Your task to perform on an android device: turn on javascript in the chrome app Image 0: 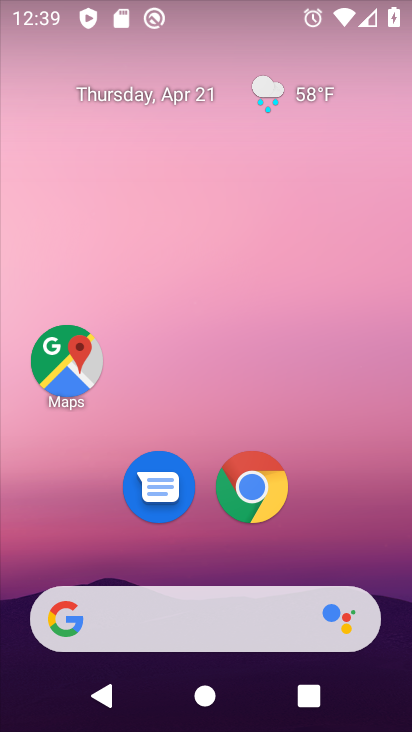
Step 0: click (260, 490)
Your task to perform on an android device: turn on javascript in the chrome app Image 1: 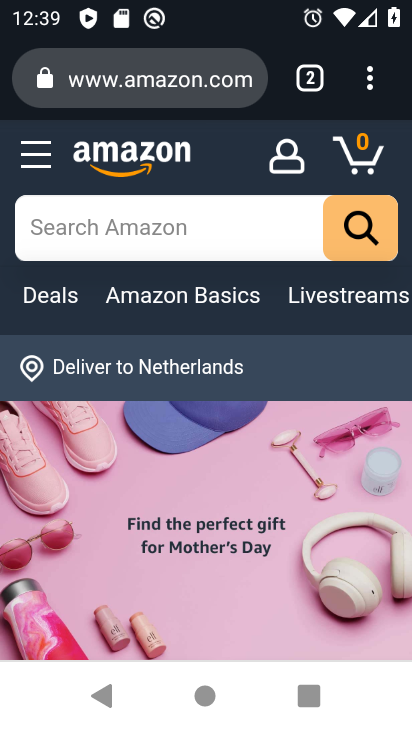
Step 1: click (370, 83)
Your task to perform on an android device: turn on javascript in the chrome app Image 2: 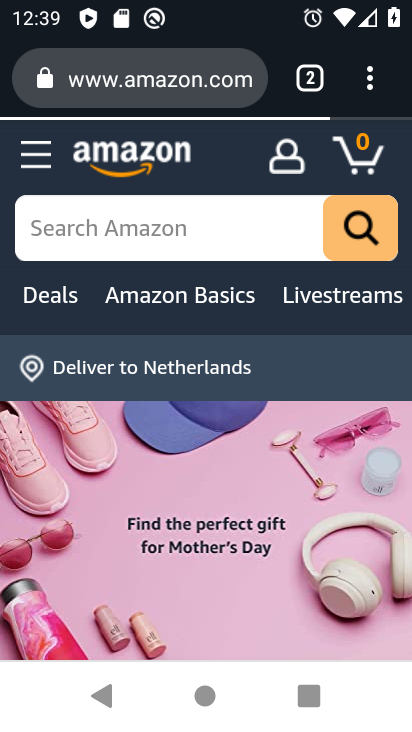
Step 2: click (370, 83)
Your task to perform on an android device: turn on javascript in the chrome app Image 3: 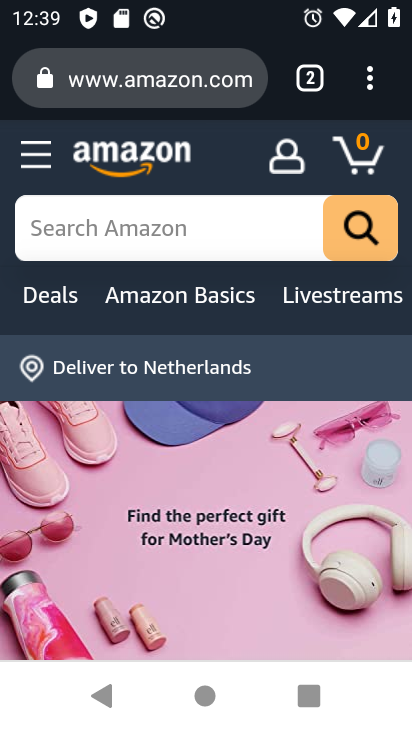
Step 3: click (351, 76)
Your task to perform on an android device: turn on javascript in the chrome app Image 4: 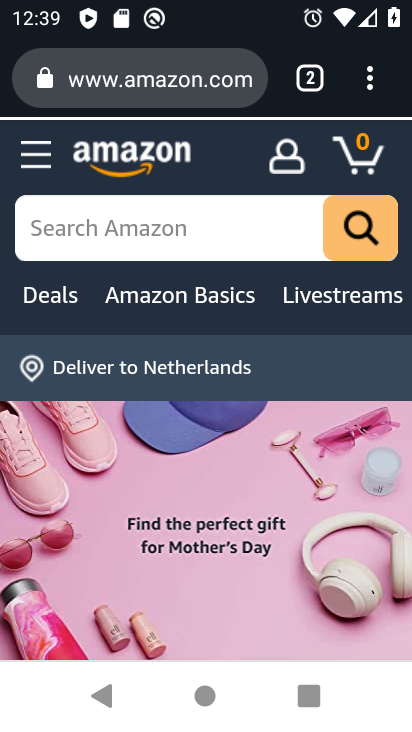
Step 4: click (344, 84)
Your task to perform on an android device: turn on javascript in the chrome app Image 5: 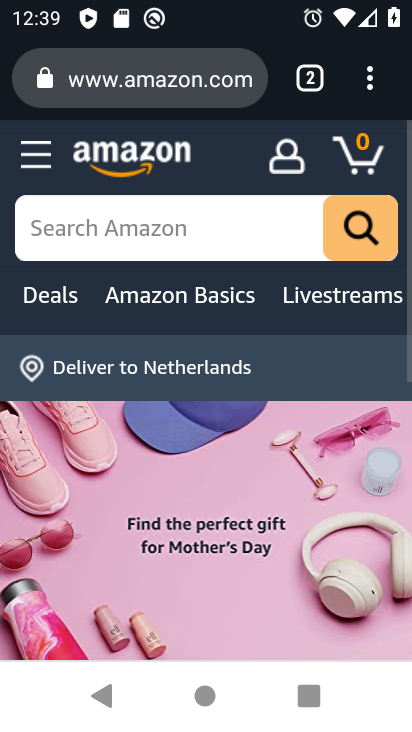
Step 5: click (342, 87)
Your task to perform on an android device: turn on javascript in the chrome app Image 6: 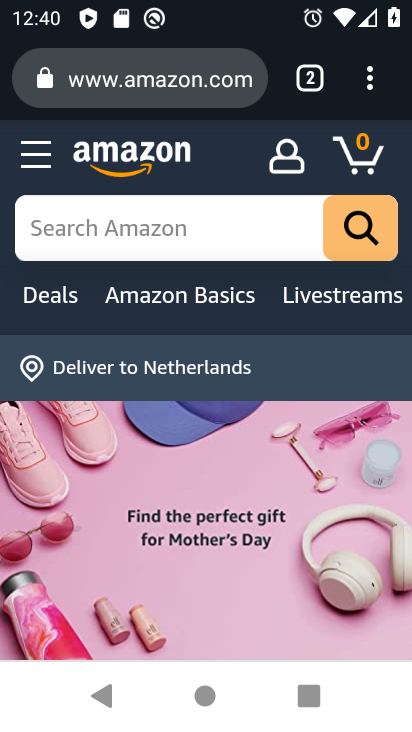
Step 6: click (367, 76)
Your task to perform on an android device: turn on javascript in the chrome app Image 7: 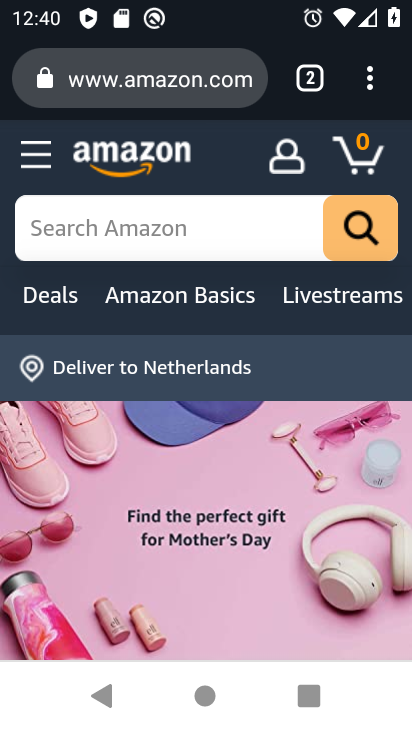
Step 7: click (376, 81)
Your task to perform on an android device: turn on javascript in the chrome app Image 8: 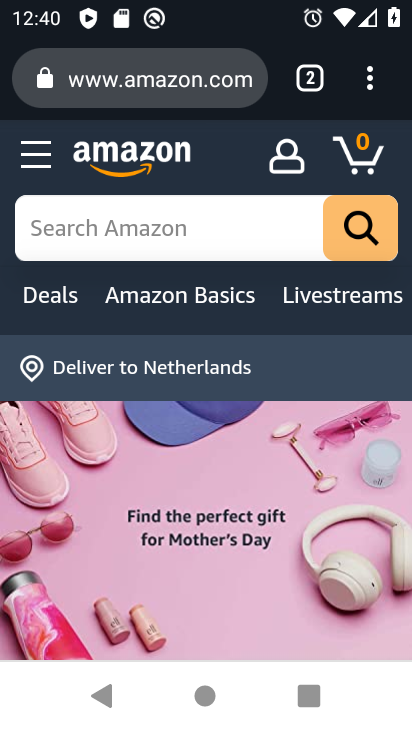
Step 8: click (369, 80)
Your task to perform on an android device: turn on javascript in the chrome app Image 9: 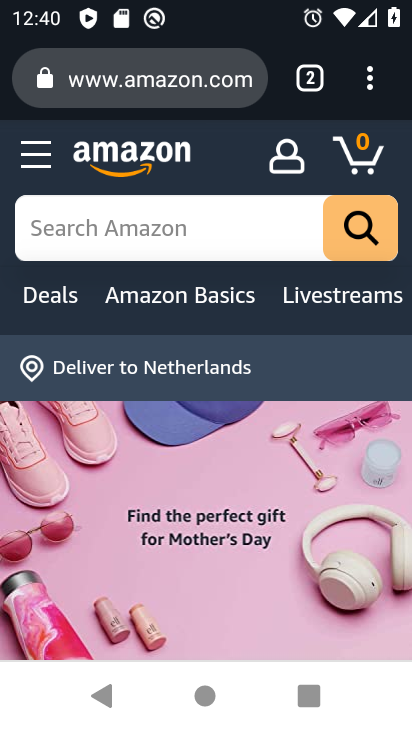
Step 9: drag from (369, 80) to (111, 544)
Your task to perform on an android device: turn on javascript in the chrome app Image 10: 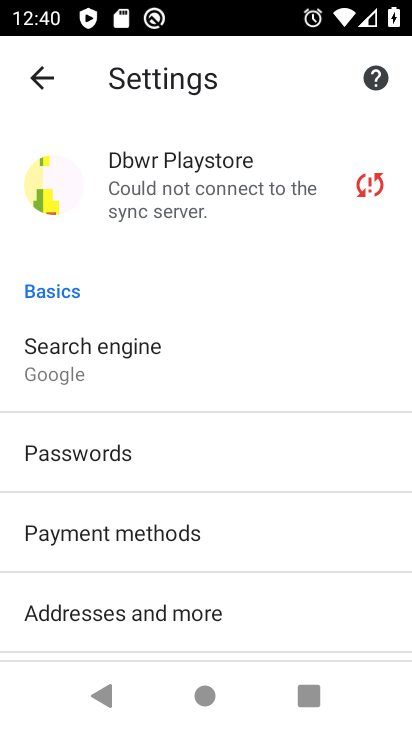
Step 10: drag from (241, 536) to (227, 181)
Your task to perform on an android device: turn on javascript in the chrome app Image 11: 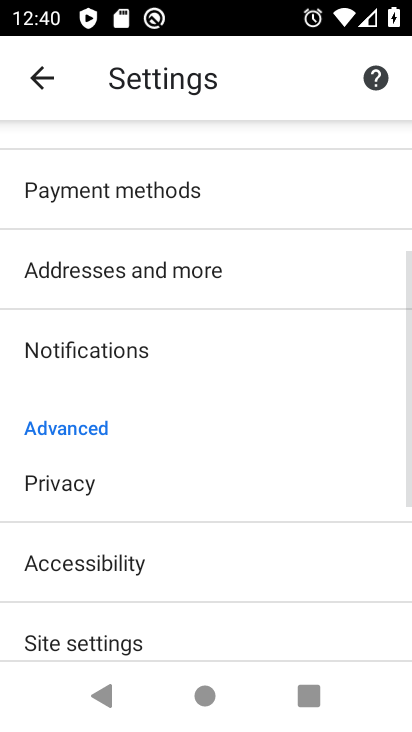
Step 11: drag from (182, 476) to (173, 160)
Your task to perform on an android device: turn on javascript in the chrome app Image 12: 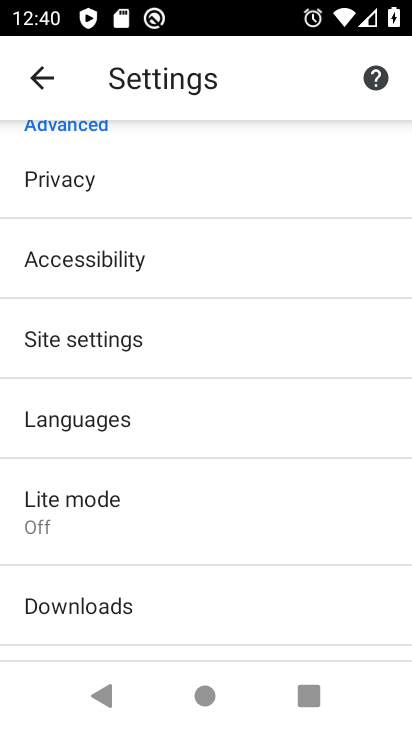
Step 12: click (76, 341)
Your task to perform on an android device: turn on javascript in the chrome app Image 13: 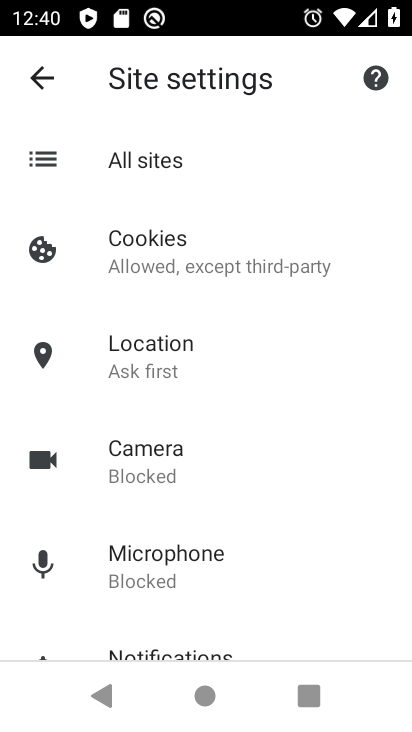
Step 13: drag from (269, 616) to (271, 223)
Your task to perform on an android device: turn on javascript in the chrome app Image 14: 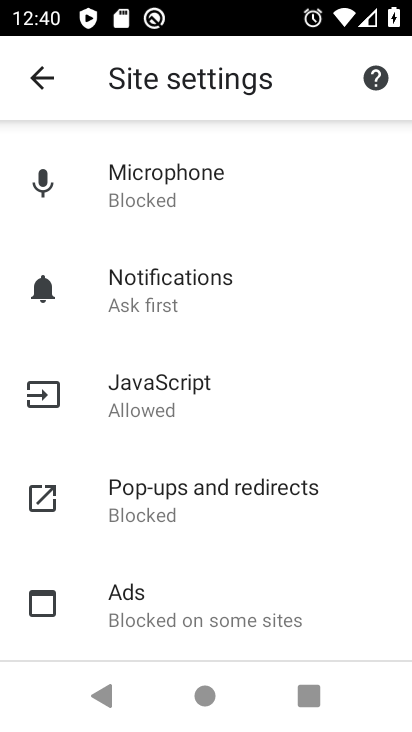
Step 14: click (143, 403)
Your task to perform on an android device: turn on javascript in the chrome app Image 15: 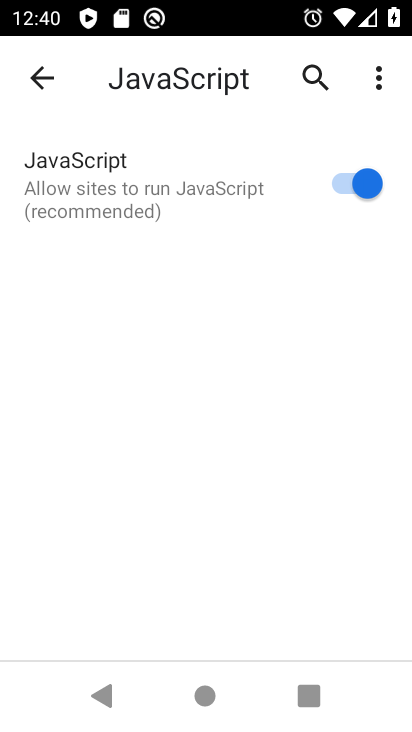
Step 15: task complete